Your task to perform on an android device: Search for logitech g933 on costco.com, select the first entry, add it to the cart, then select checkout. Image 0: 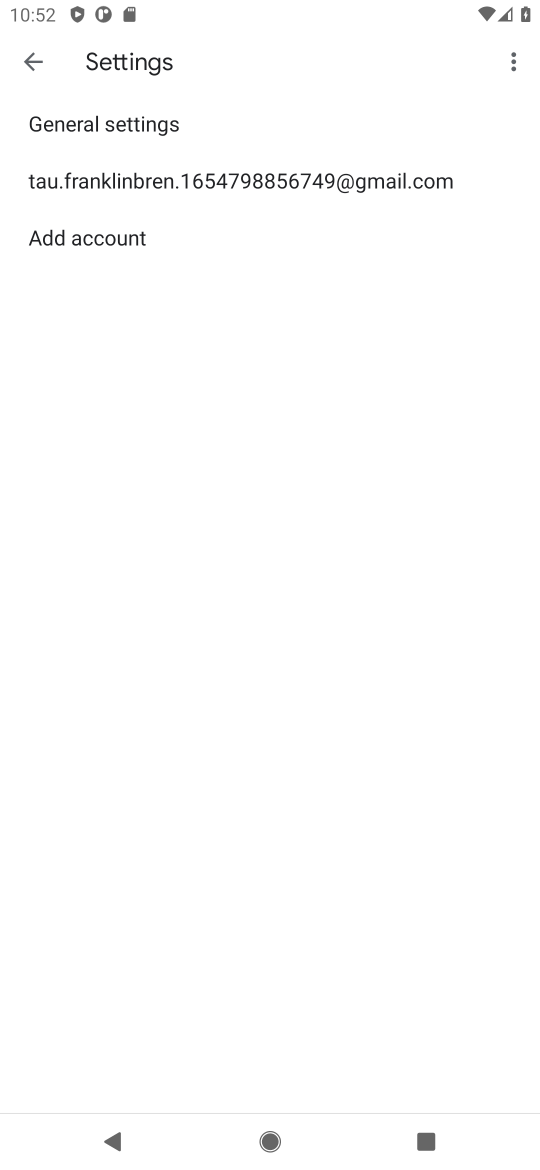
Step 0: press home button
Your task to perform on an android device: Search for logitech g933 on costco.com, select the first entry, add it to the cart, then select checkout. Image 1: 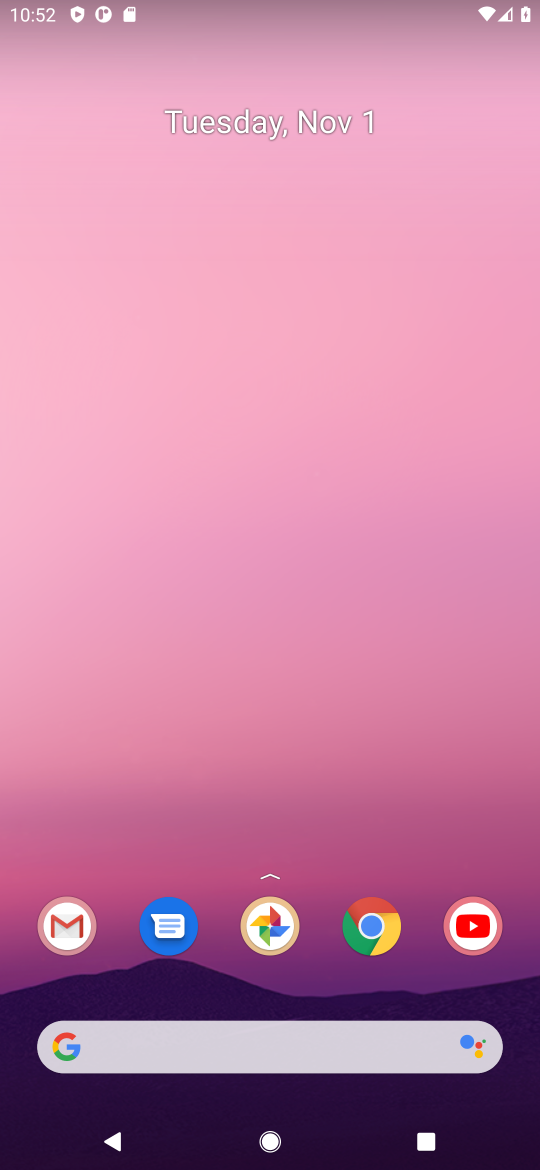
Step 1: click (349, 926)
Your task to perform on an android device: Search for logitech g933 on costco.com, select the first entry, add it to the cart, then select checkout. Image 2: 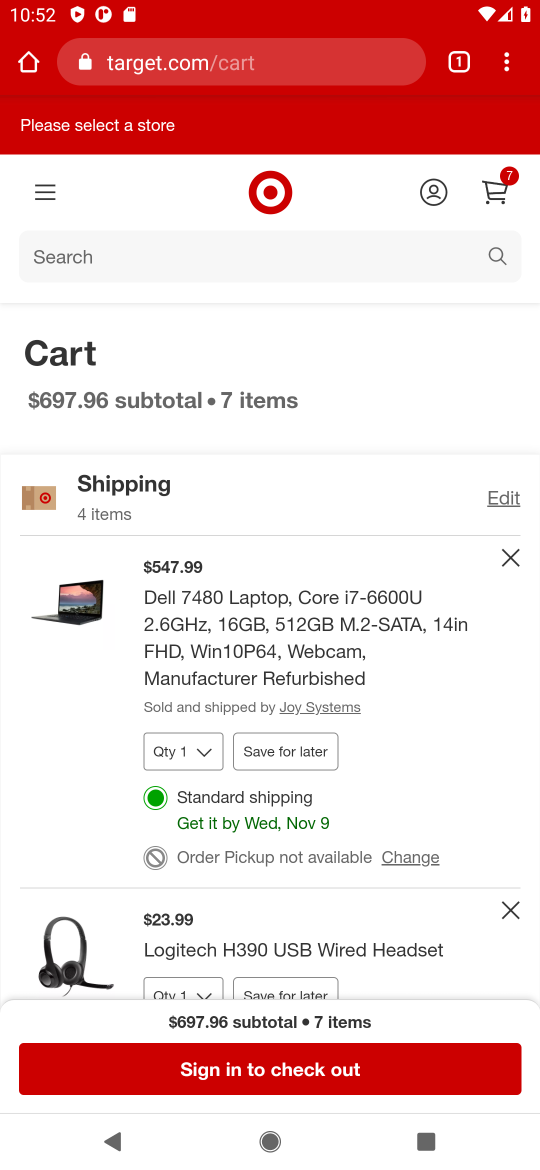
Step 2: click (156, 56)
Your task to perform on an android device: Search for logitech g933 on costco.com, select the first entry, add it to the cart, then select checkout. Image 3: 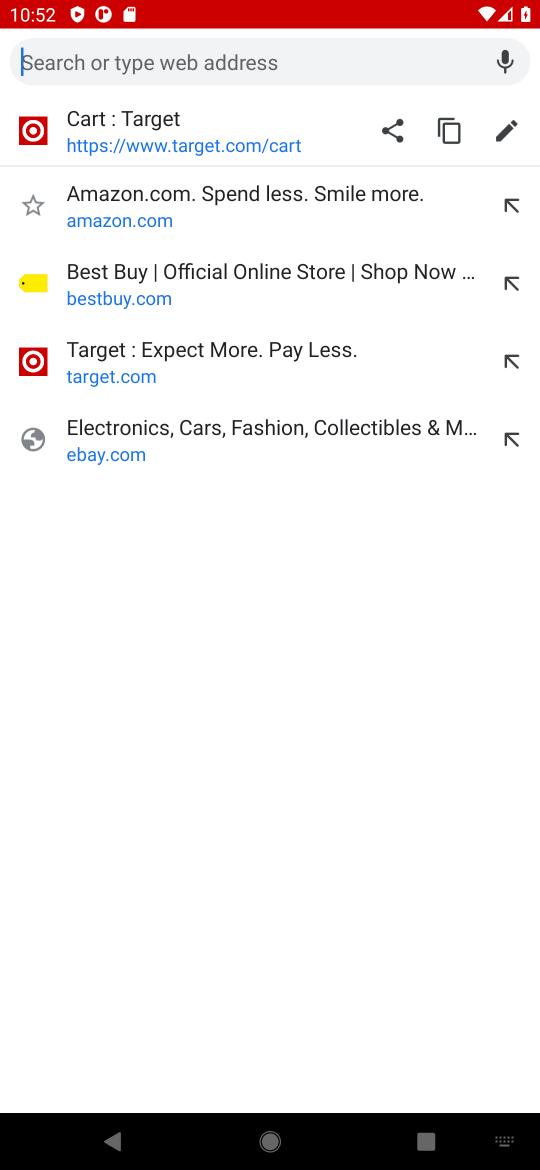
Step 3: type "costco.com"
Your task to perform on an android device: Search for logitech g933 on costco.com, select the first entry, add it to the cart, then select checkout. Image 4: 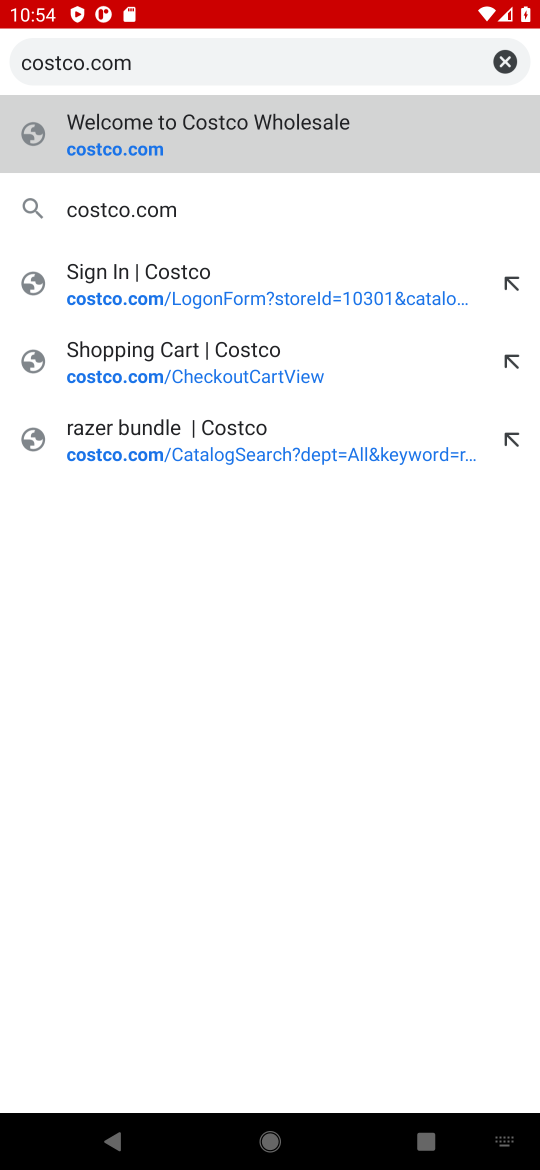
Step 4: click (121, 209)
Your task to perform on an android device: Search for logitech g933 on costco.com, select the first entry, add it to the cart, then select checkout. Image 5: 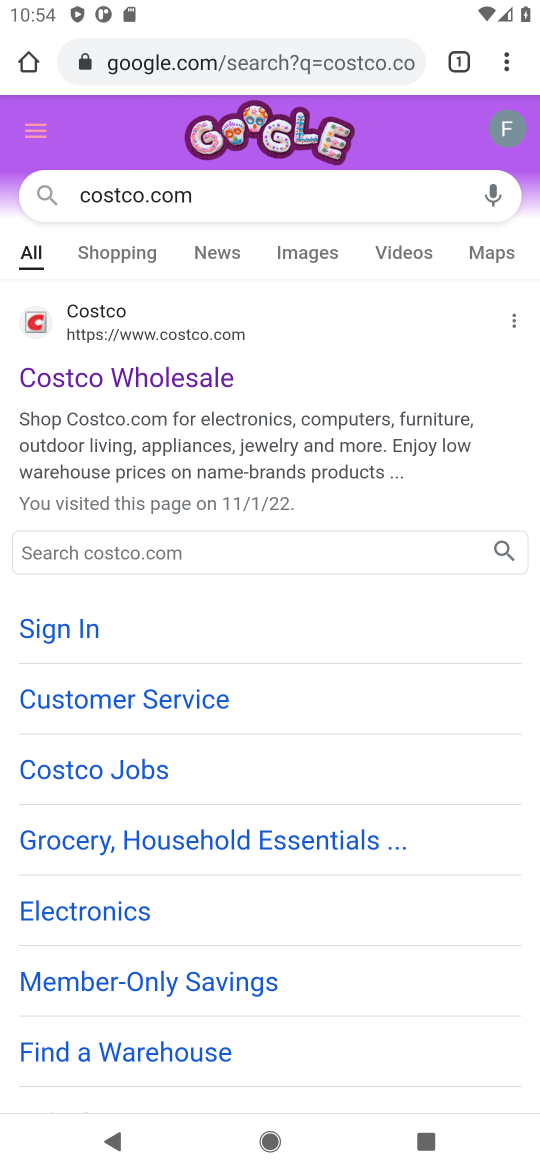
Step 5: drag from (184, 892) to (348, 279)
Your task to perform on an android device: Search for logitech g933 on costco.com, select the first entry, add it to the cart, then select checkout. Image 6: 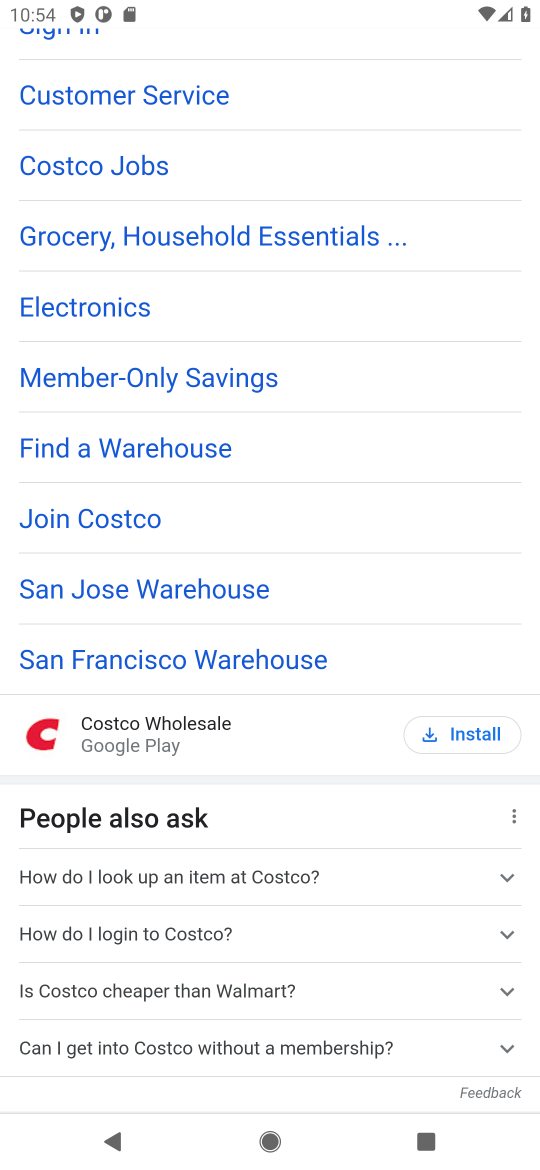
Step 6: drag from (179, 868) to (240, 51)
Your task to perform on an android device: Search for logitech g933 on costco.com, select the first entry, add it to the cart, then select checkout. Image 7: 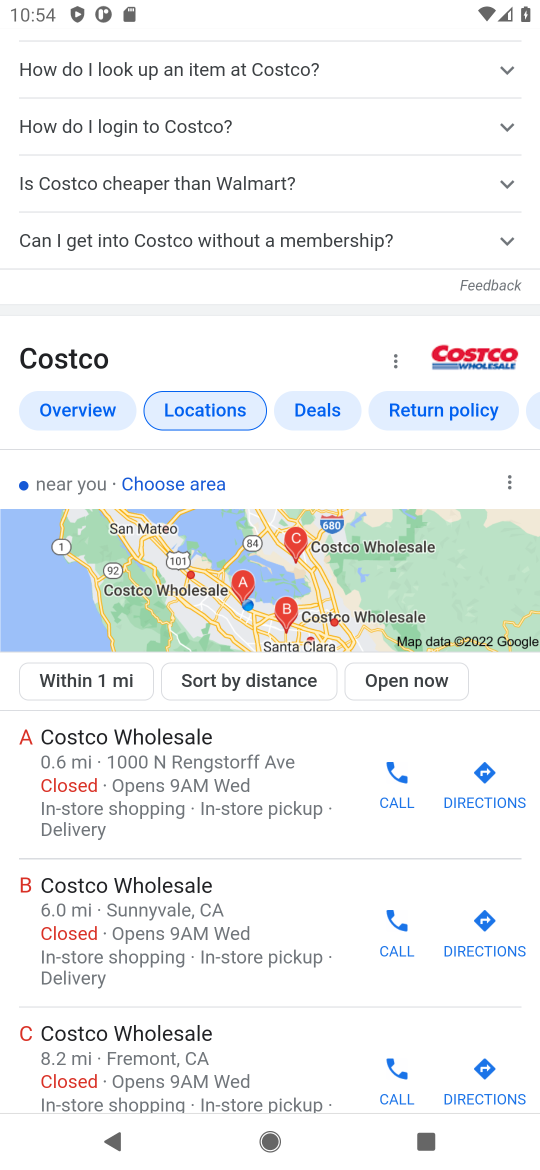
Step 7: drag from (113, 910) to (229, 190)
Your task to perform on an android device: Search for logitech g933 on costco.com, select the first entry, add it to the cart, then select checkout. Image 8: 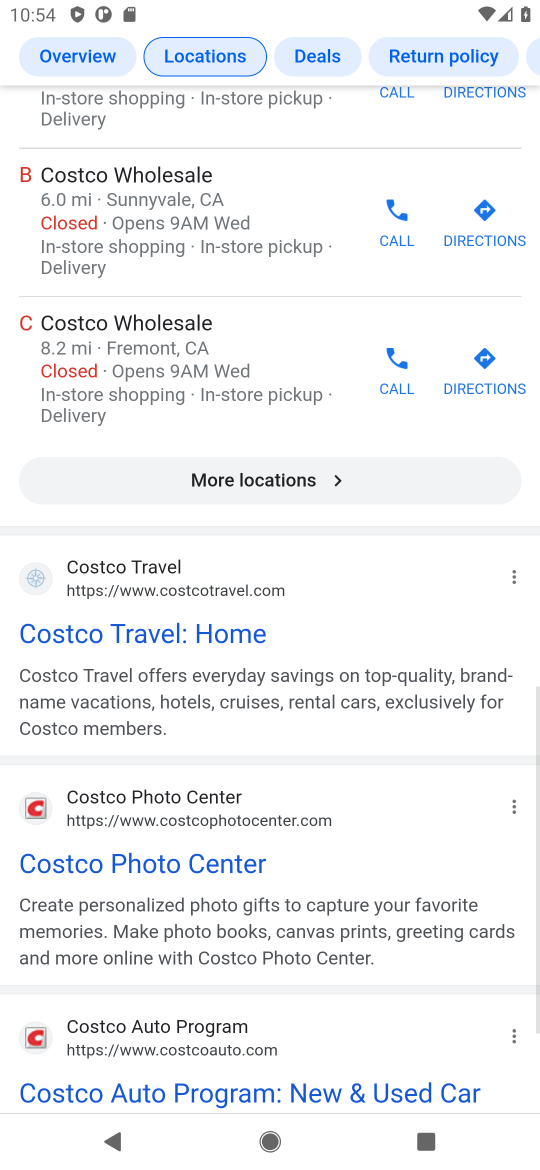
Step 8: drag from (266, 537) to (1, 830)
Your task to perform on an android device: Search for logitech g933 on costco.com, select the first entry, add it to the cart, then select checkout. Image 9: 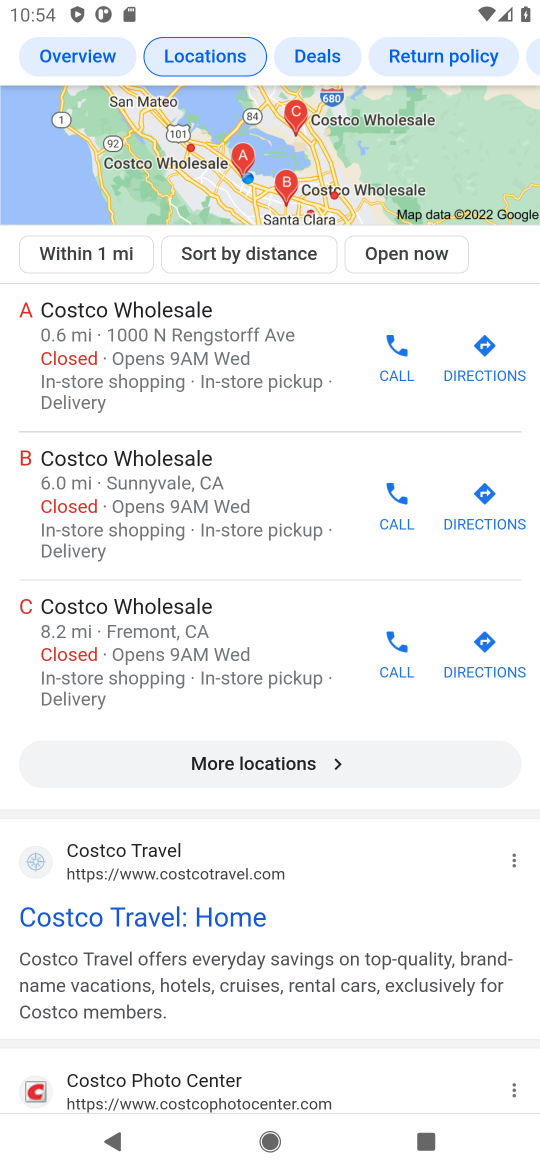
Step 9: drag from (283, 235) to (19, 631)
Your task to perform on an android device: Search for logitech g933 on costco.com, select the first entry, add it to the cart, then select checkout. Image 10: 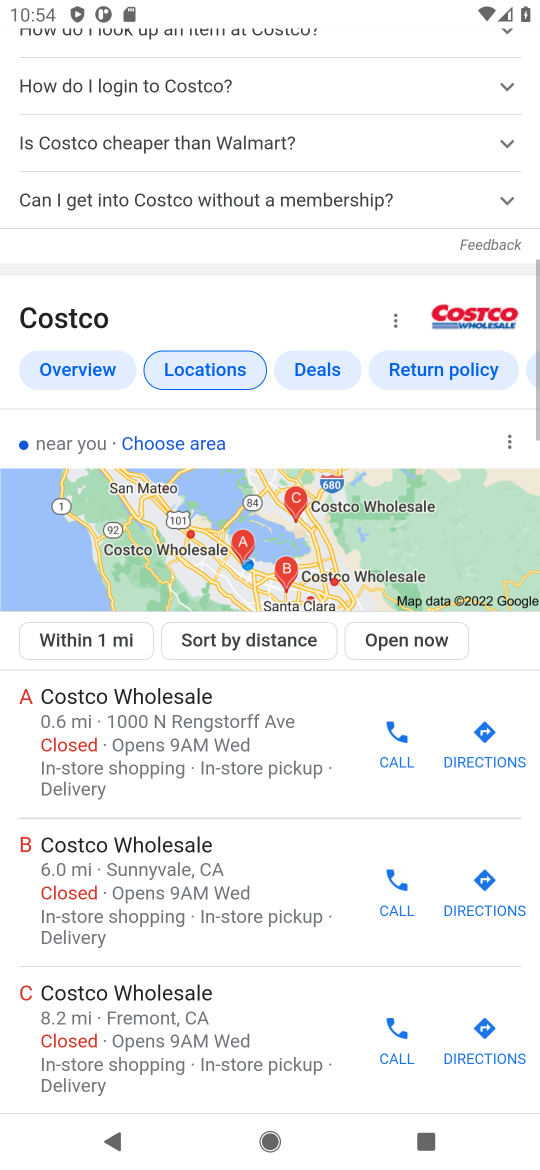
Step 10: drag from (403, 426) to (131, 1073)
Your task to perform on an android device: Search for logitech g933 on costco.com, select the first entry, add it to the cart, then select checkout. Image 11: 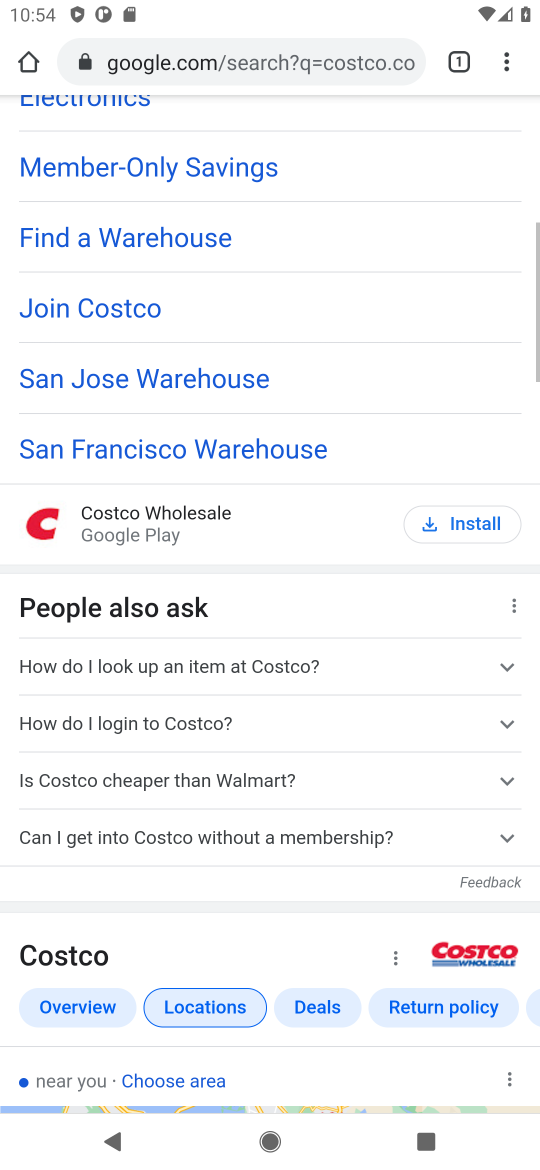
Step 11: drag from (183, 381) to (0, 192)
Your task to perform on an android device: Search for logitech g933 on costco.com, select the first entry, add it to the cart, then select checkout. Image 12: 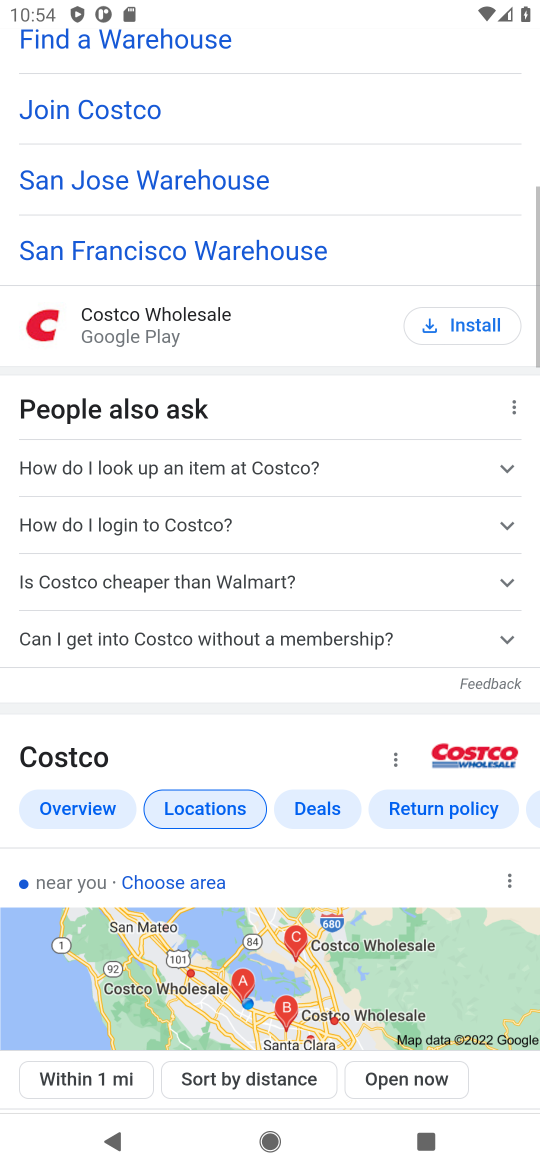
Step 12: drag from (143, 488) to (132, 817)
Your task to perform on an android device: Search for logitech g933 on costco.com, select the first entry, add it to the cart, then select checkout. Image 13: 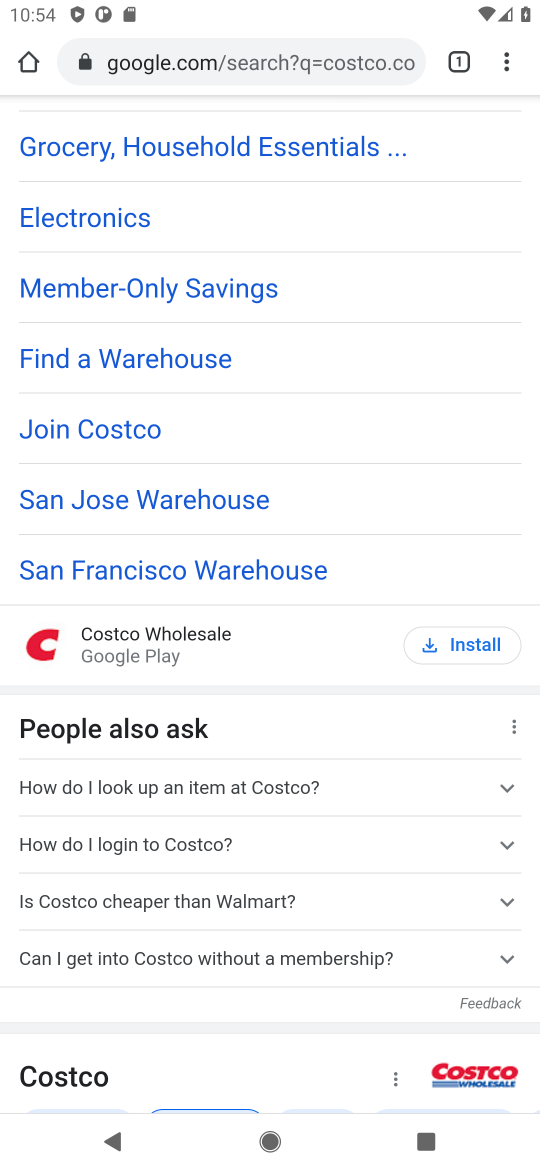
Step 13: drag from (133, 243) to (81, 796)
Your task to perform on an android device: Search for logitech g933 on costco.com, select the first entry, add it to the cart, then select checkout. Image 14: 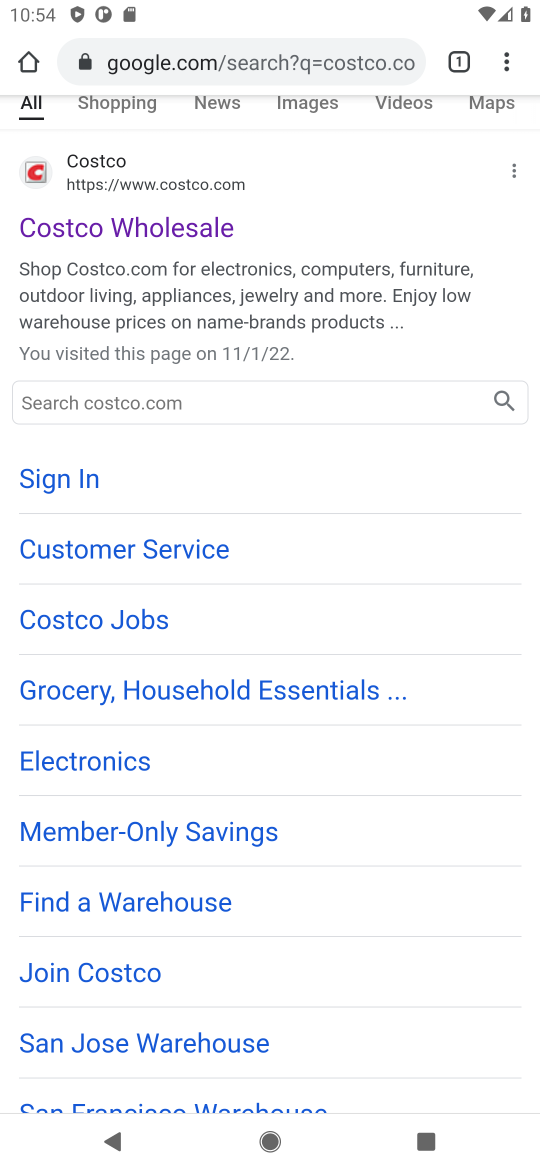
Step 14: click (143, 234)
Your task to perform on an android device: Search for logitech g933 on costco.com, select the first entry, add it to the cart, then select checkout. Image 15: 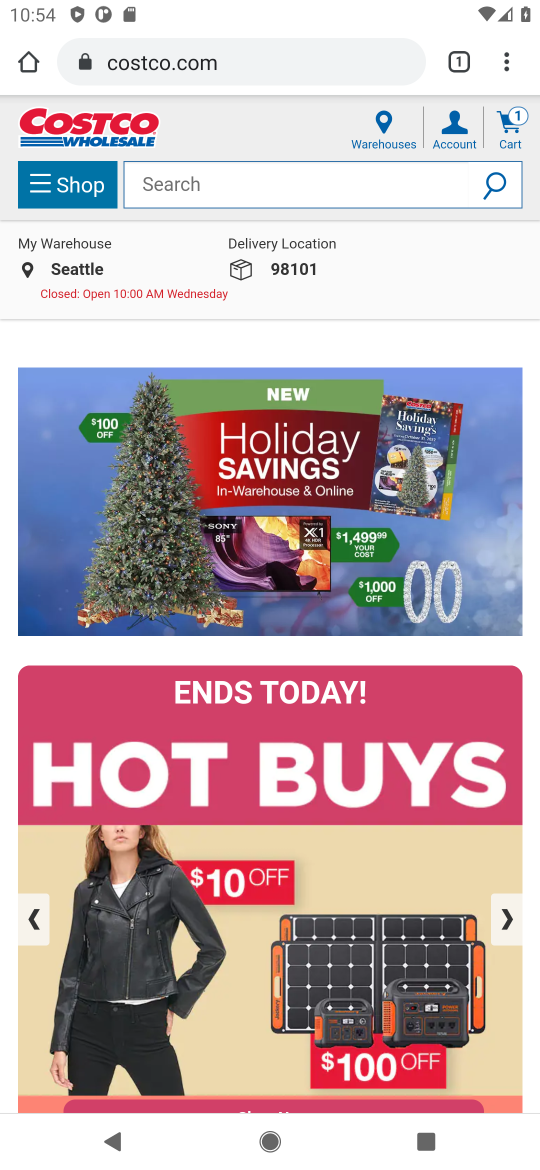
Step 15: click (234, 177)
Your task to perform on an android device: Search for logitech g933 on costco.com, select the first entry, add it to the cart, then select checkout. Image 16: 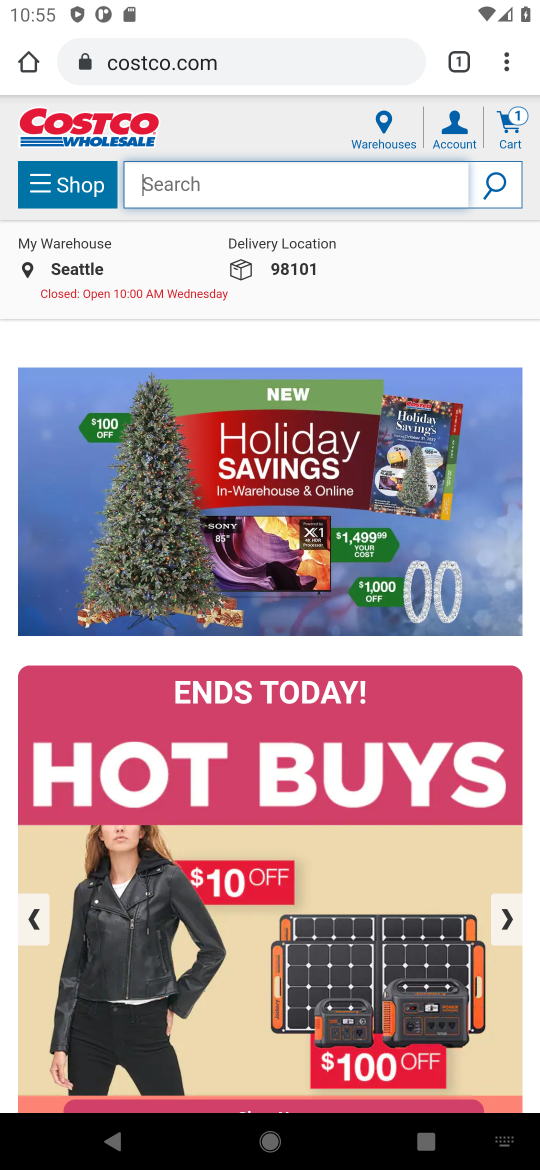
Step 16: type "logitech g 933"
Your task to perform on an android device: Search for logitech g933 on costco.com, select the first entry, add it to the cart, then select checkout. Image 17: 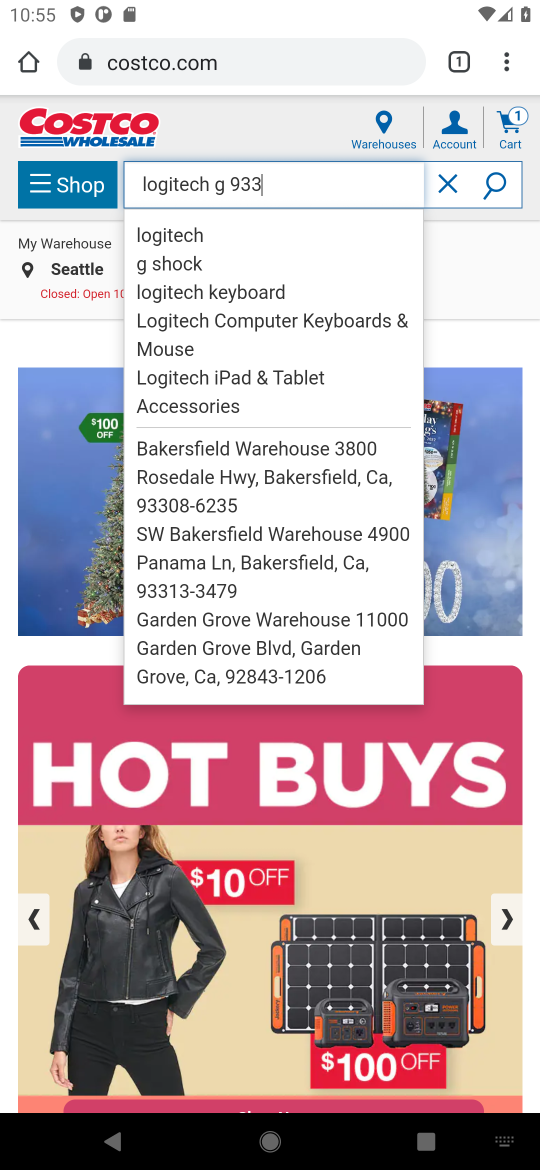
Step 17: click (196, 234)
Your task to perform on an android device: Search for logitech g933 on costco.com, select the first entry, add it to the cart, then select checkout. Image 18: 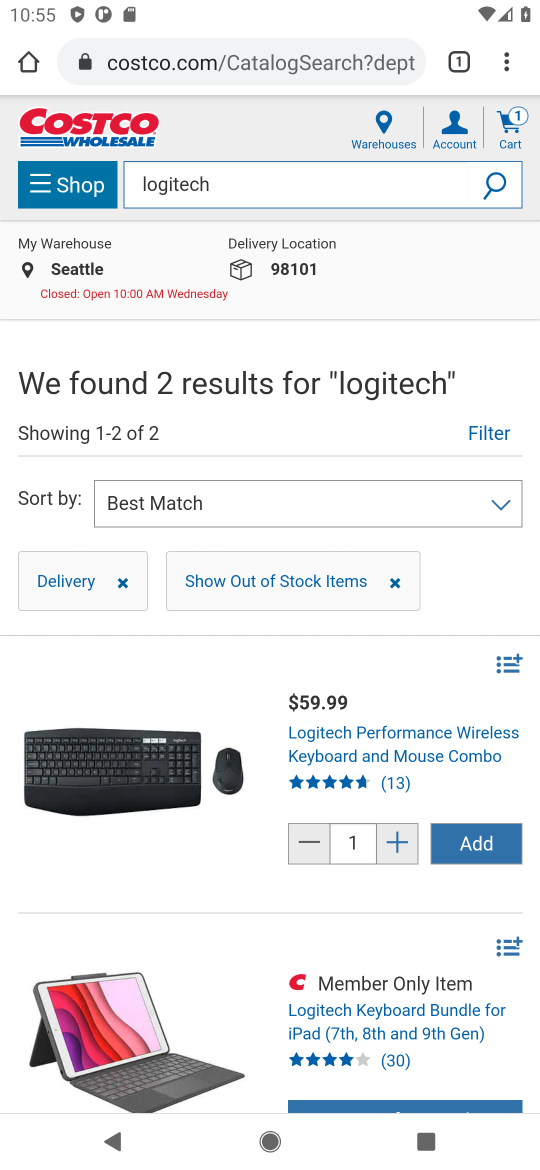
Step 18: drag from (173, 876) to (201, 349)
Your task to perform on an android device: Search for logitech g933 on costco.com, select the first entry, add it to the cart, then select checkout. Image 19: 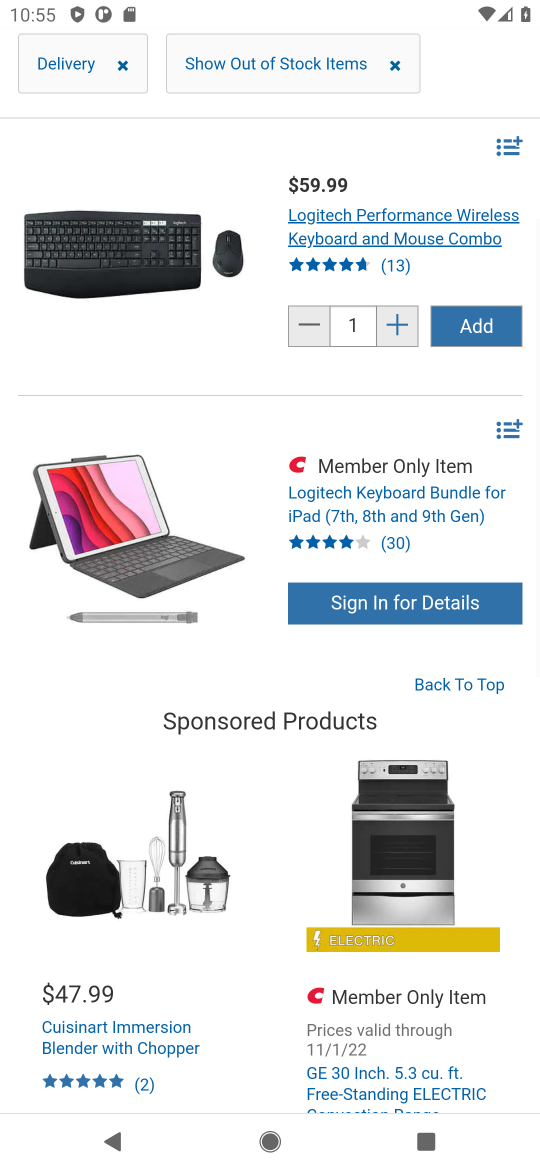
Step 19: click (303, 226)
Your task to perform on an android device: Search for logitech g933 on costco.com, select the first entry, add it to the cart, then select checkout. Image 20: 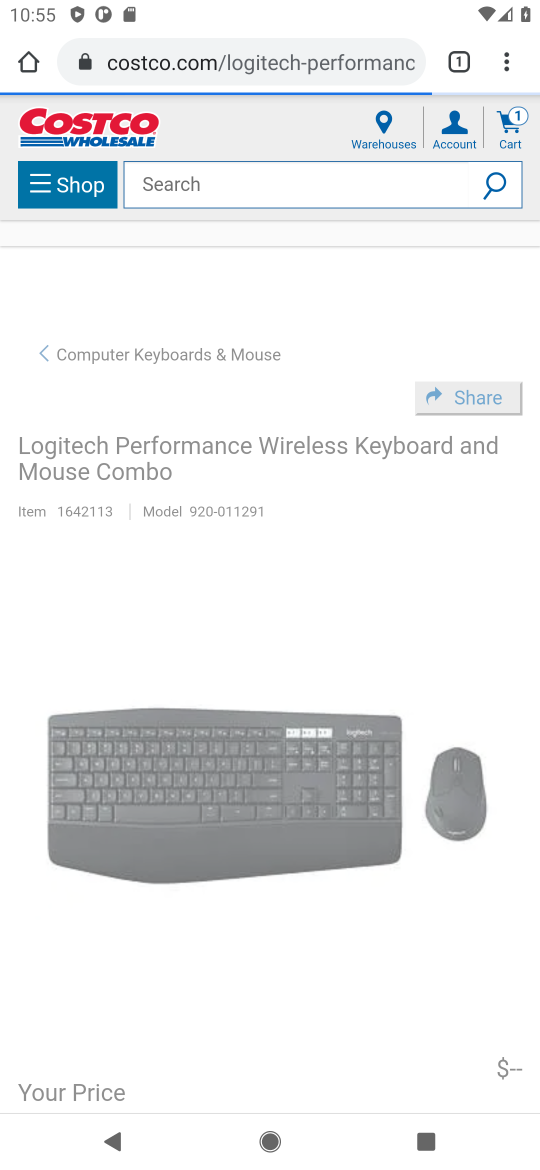
Step 20: drag from (232, 660) to (146, 112)
Your task to perform on an android device: Search for logitech g933 on costco.com, select the first entry, add it to the cart, then select checkout. Image 21: 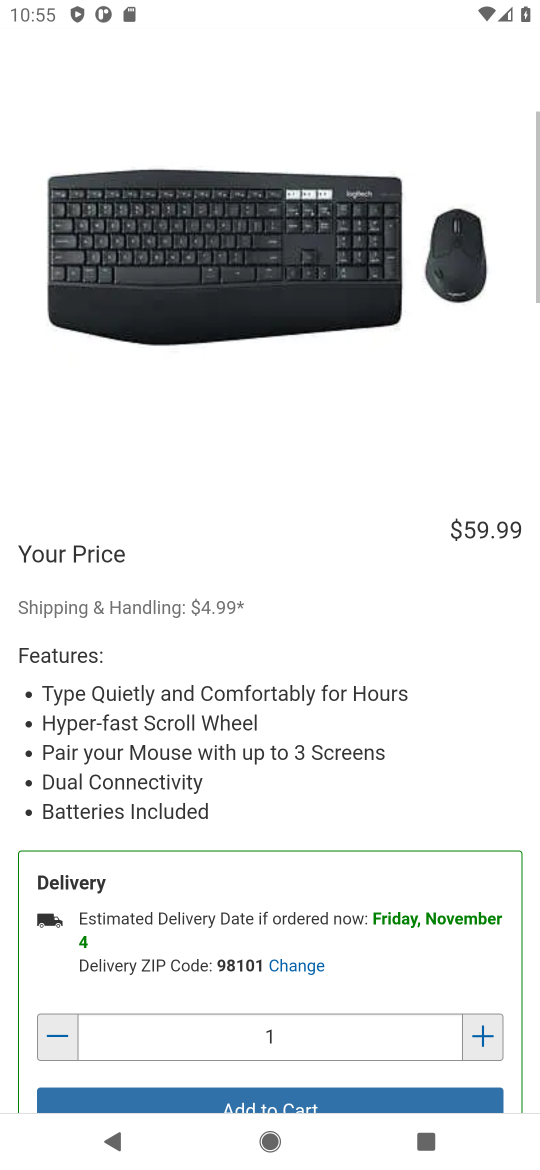
Step 21: drag from (267, 734) to (241, 240)
Your task to perform on an android device: Search for logitech g933 on costco.com, select the first entry, add it to the cart, then select checkout. Image 22: 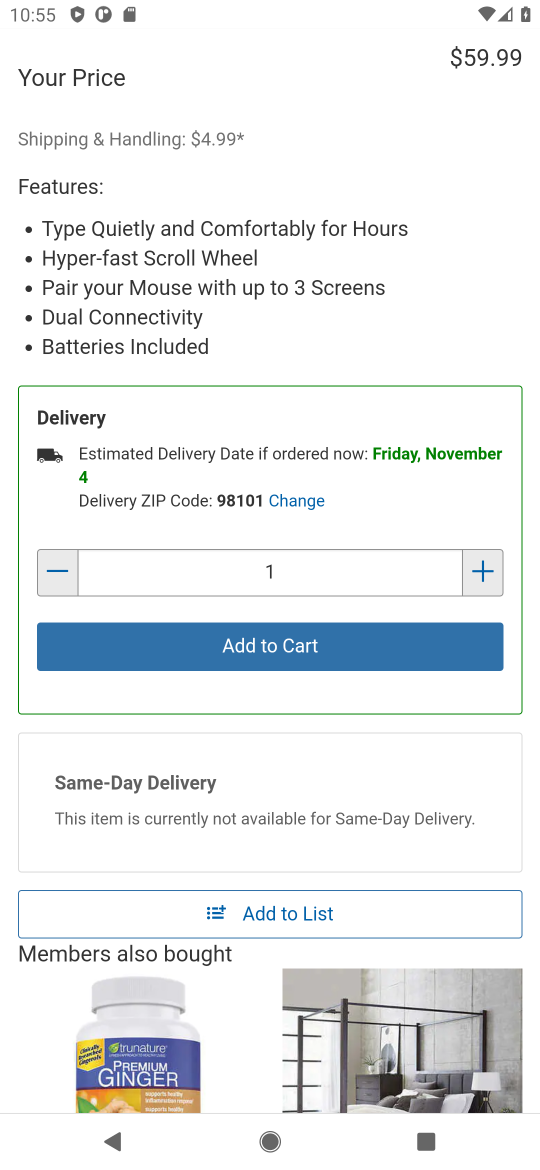
Step 22: click (237, 661)
Your task to perform on an android device: Search for logitech g933 on costco.com, select the first entry, add it to the cart, then select checkout. Image 23: 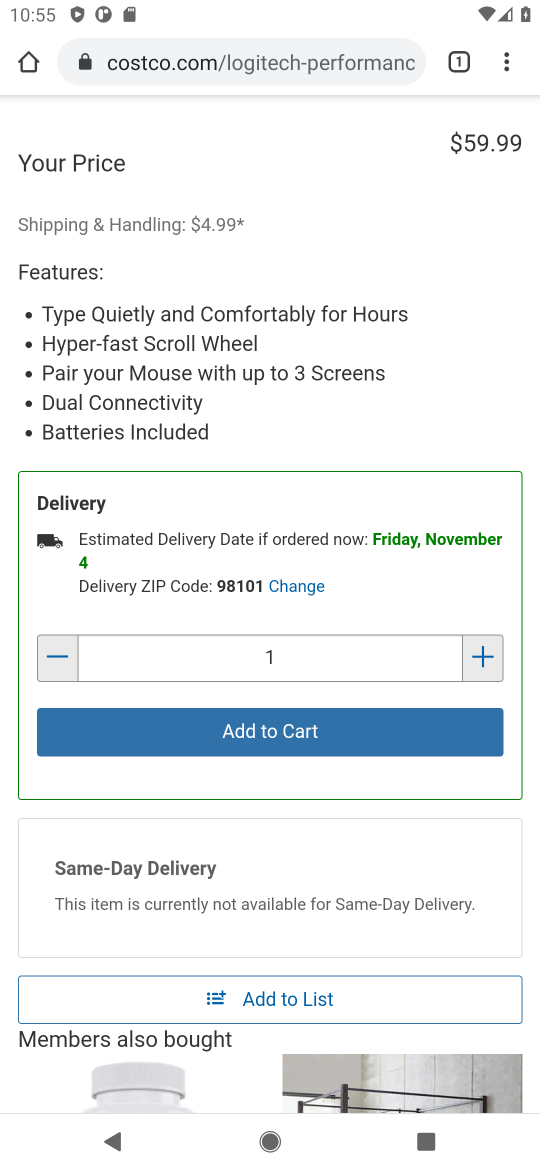
Step 23: click (271, 740)
Your task to perform on an android device: Search for logitech g933 on costco.com, select the first entry, add it to the cart, then select checkout. Image 24: 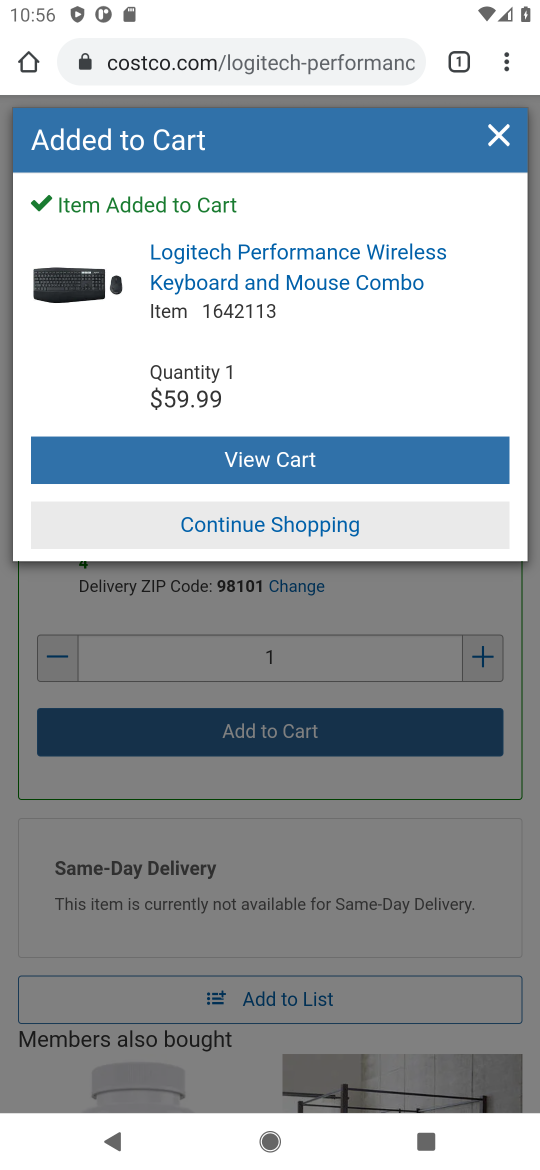
Step 24: click (243, 459)
Your task to perform on an android device: Search for logitech g933 on costco.com, select the first entry, add it to the cart, then select checkout. Image 25: 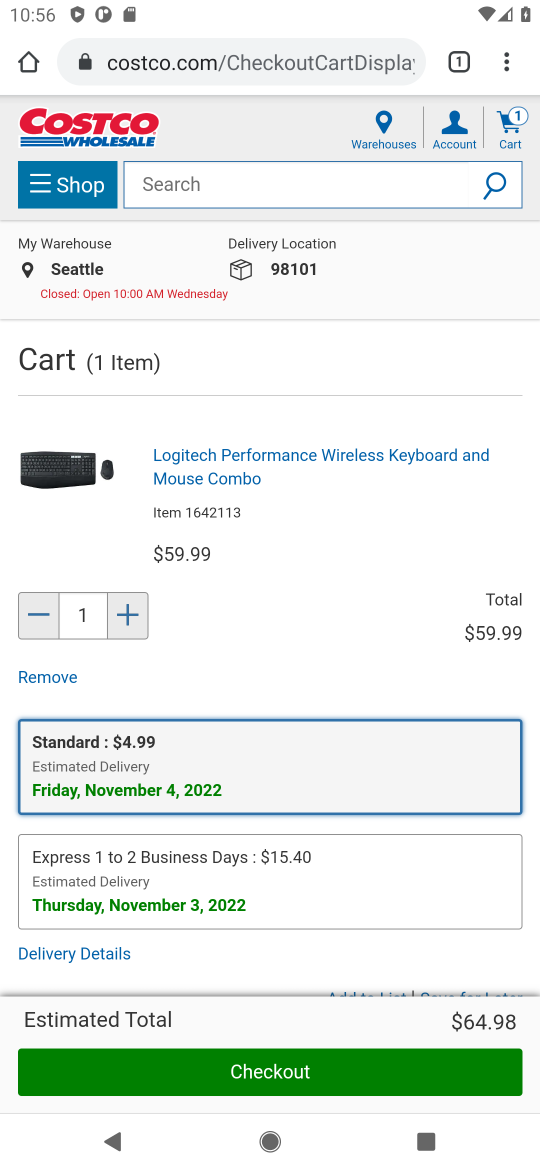
Step 25: drag from (242, 793) to (241, 557)
Your task to perform on an android device: Search for logitech g933 on costco.com, select the first entry, add it to the cart, then select checkout. Image 26: 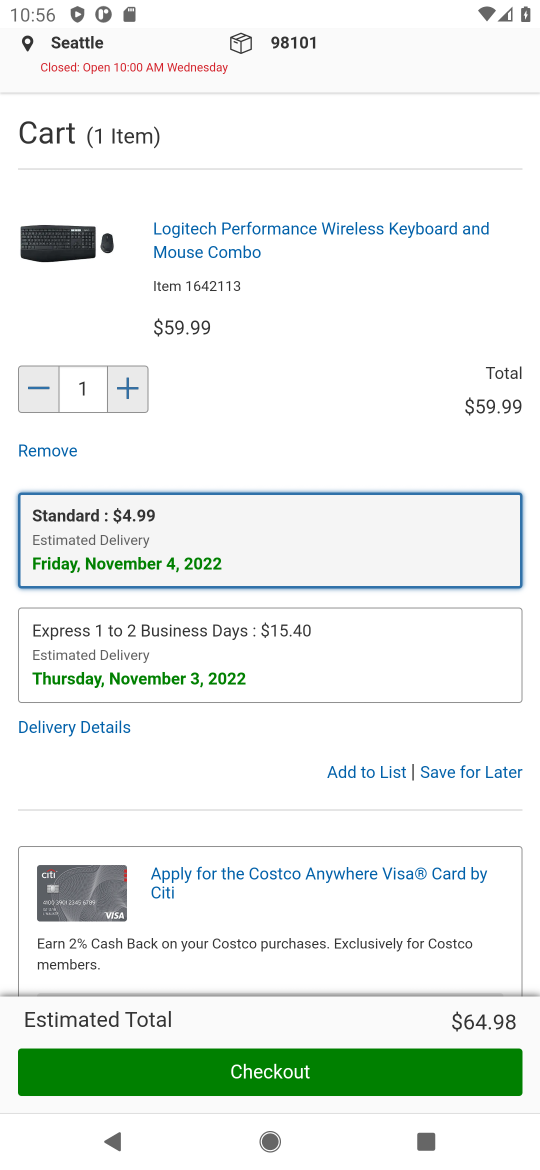
Step 26: click (243, 1069)
Your task to perform on an android device: Search for logitech g933 on costco.com, select the first entry, add it to the cart, then select checkout. Image 27: 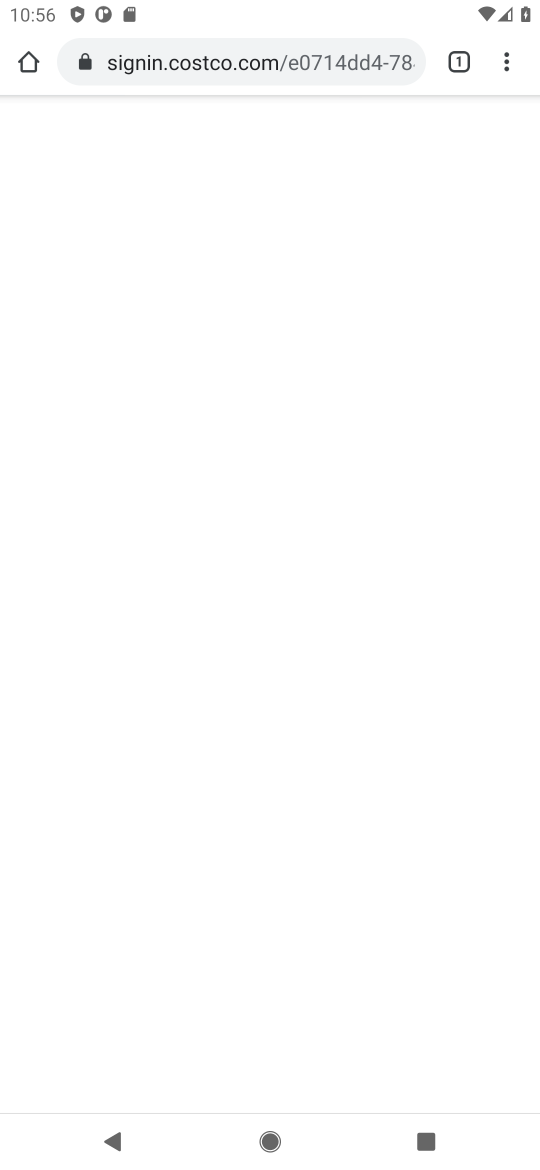
Step 27: task complete